Your task to perform on an android device: Search for Italian restaurants on Maps Image 0: 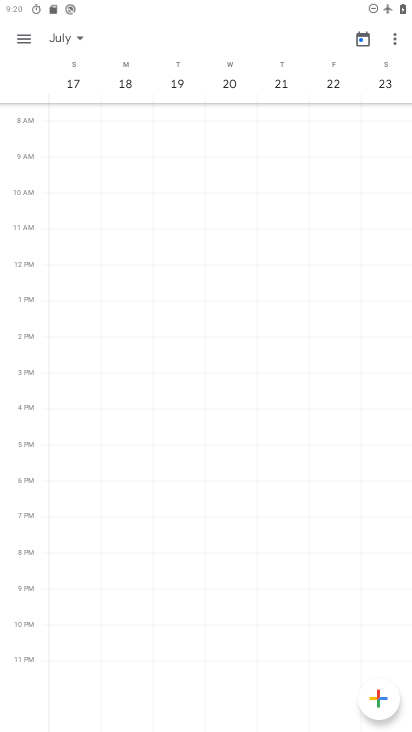
Step 0: press home button
Your task to perform on an android device: Search for Italian restaurants on Maps Image 1: 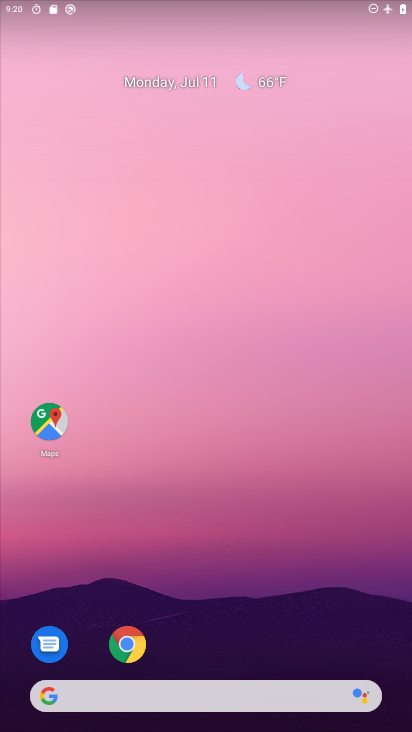
Step 1: drag from (310, 633) to (250, 60)
Your task to perform on an android device: Search for Italian restaurants on Maps Image 2: 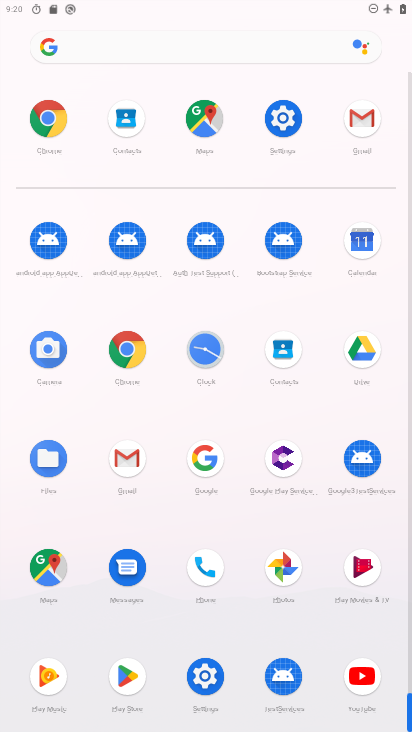
Step 2: click (199, 112)
Your task to perform on an android device: Search for Italian restaurants on Maps Image 3: 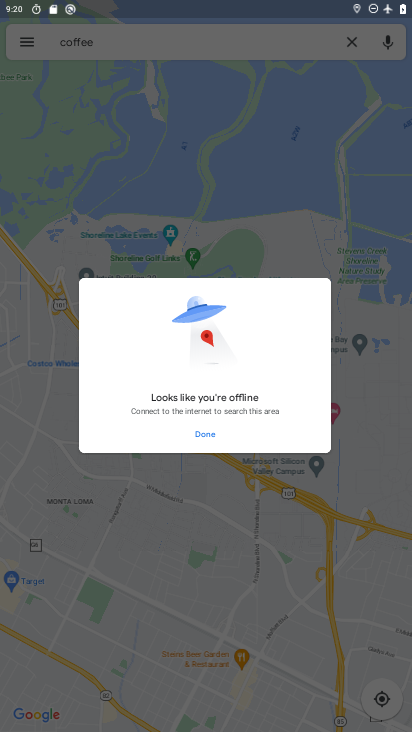
Step 3: task complete